Your task to perform on an android device: clear all cookies in the chrome app Image 0: 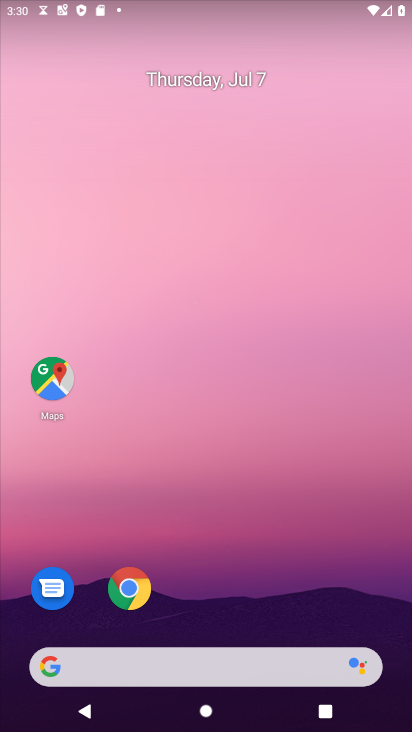
Step 0: drag from (232, 628) to (219, 145)
Your task to perform on an android device: clear all cookies in the chrome app Image 1: 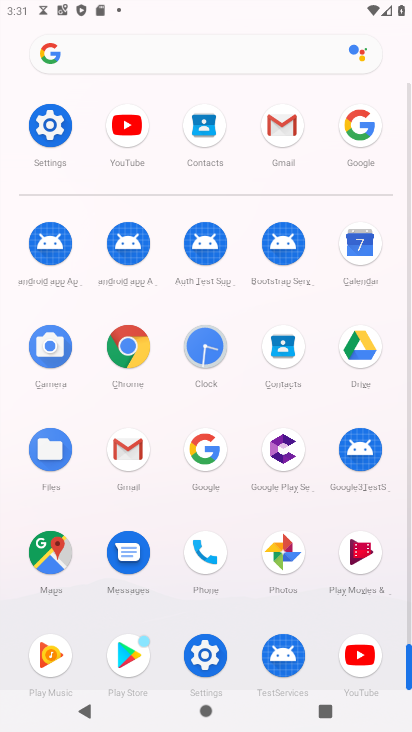
Step 1: click (128, 343)
Your task to perform on an android device: clear all cookies in the chrome app Image 2: 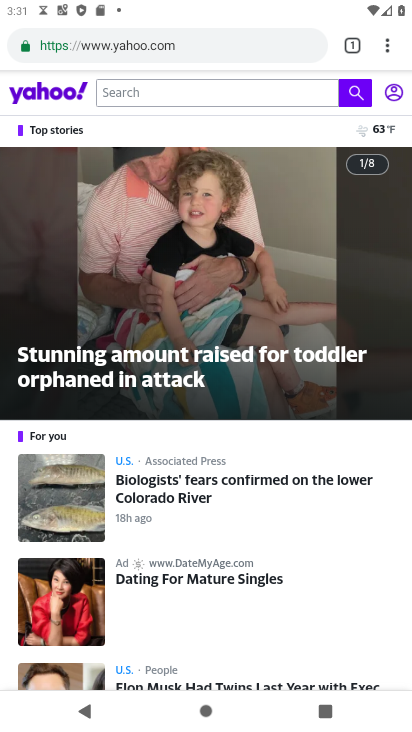
Step 2: click (388, 46)
Your task to perform on an android device: clear all cookies in the chrome app Image 3: 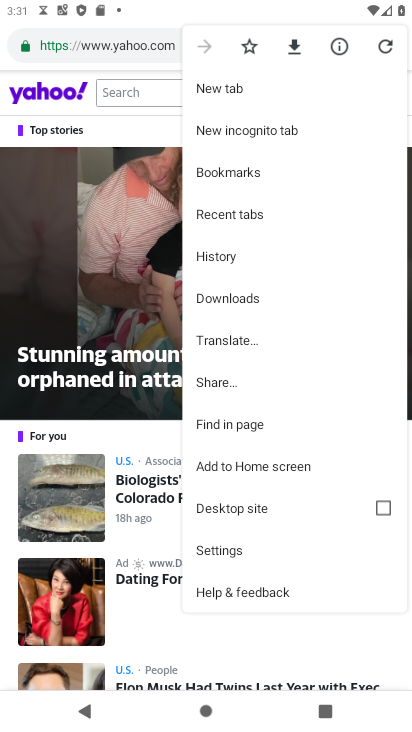
Step 3: click (233, 249)
Your task to perform on an android device: clear all cookies in the chrome app Image 4: 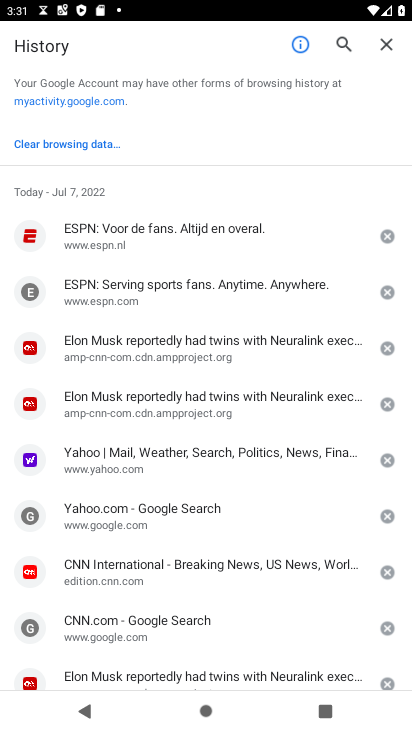
Step 4: click (88, 146)
Your task to perform on an android device: clear all cookies in the chrome app Image 5: 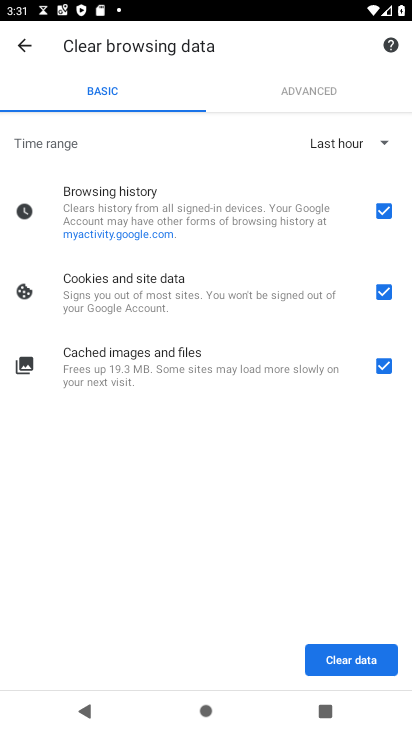
Step 5: click (380, 208)
Your task to perform on an android device: clear all cookies in the chrome app Image 6: 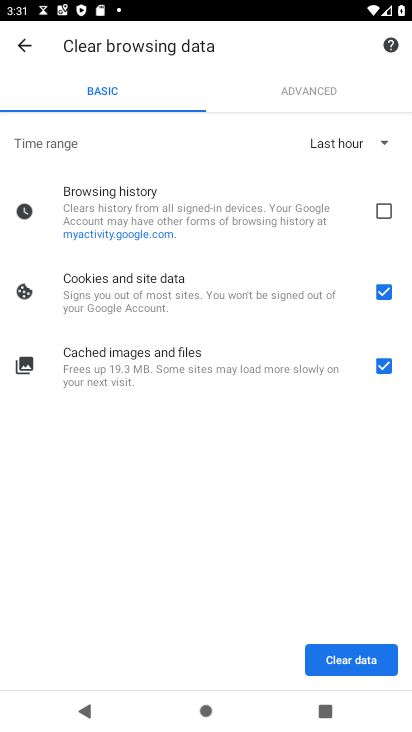
Step 6: click (384, 367)
Your task to perform on an android device: clear all cookies in the chrome app Image 7: 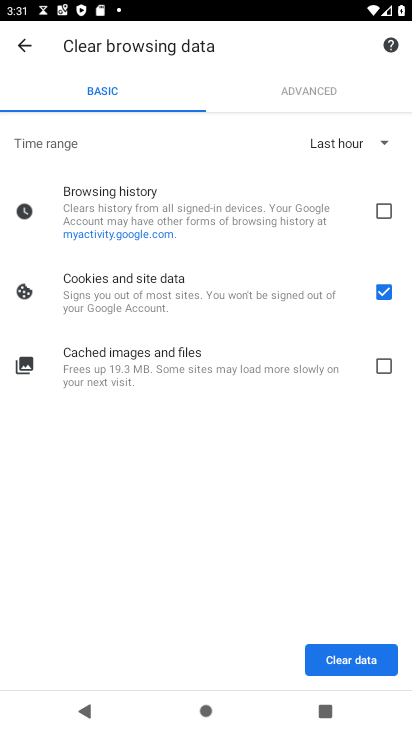
Step 7: click (385, 139)
Your task to perform on an android device: clear all cookies in the chrome app Image 8: 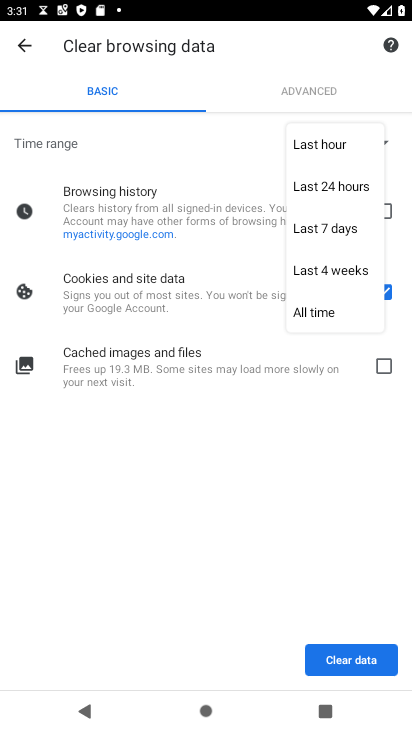
Step 8: click (327, 312)
Your task to perform on an android device: clear all cookies in the chrome app Image 9: 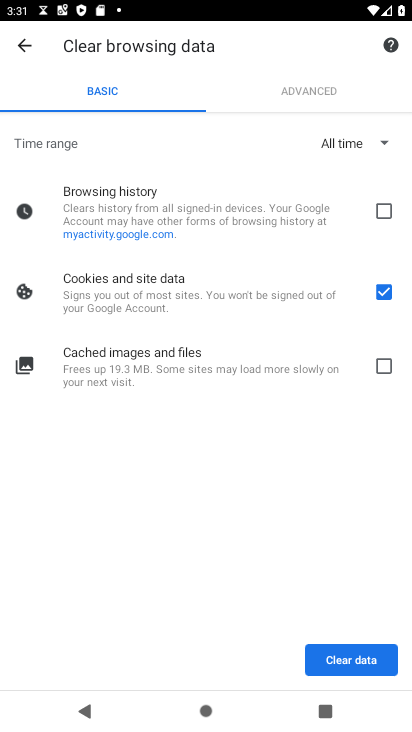
Step 9: click (357, 653)
Your task to perform on an android device: clear all cookies in the chrome app Image 10: 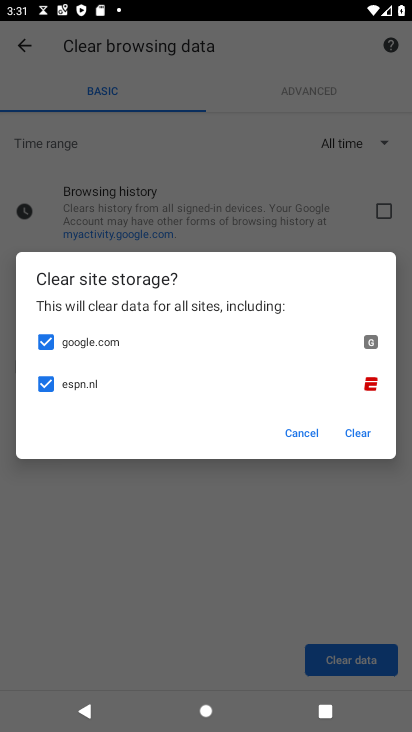
Step 10: click (356, 435)
Your task to perform on an android device: clear all cookies in the chrome app Image 11: 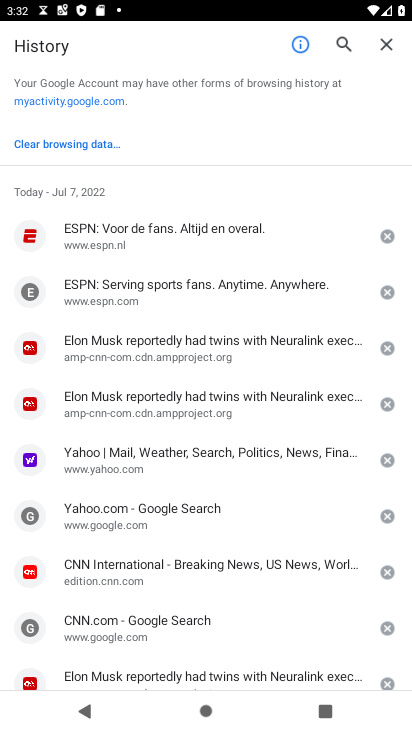
Step 11: task complete